Your task to perform on an android device: turn off sleep mode Image 0: 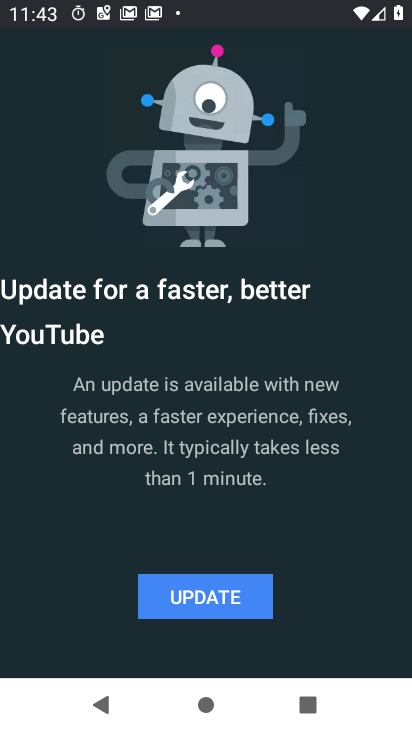
Step 0: press home button
Your task to perform on an android device: turn off sleep mode Image 1: 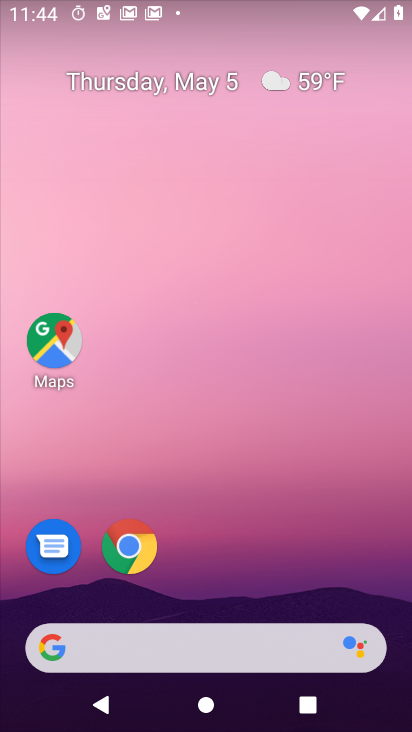
Step 1: drag from (266, 451) to (257, 37)
Your task to perform on an android device: turn off sleep mode Image 2: 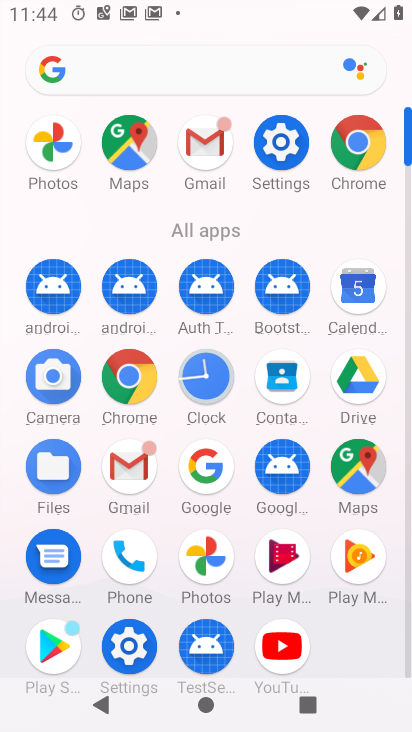
Step 2: click (286, 128)
Your task to perform on an android device: turn off sleep mode Image 3: 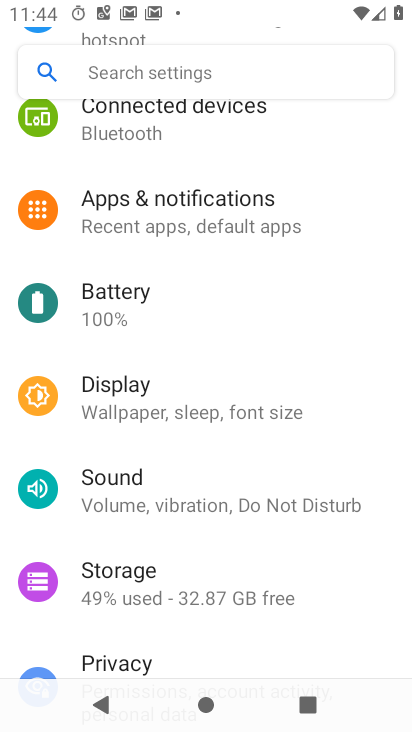
Step 3: click (281, 401)
Your task to perform on an android device: turn off sleep mode Image 4: 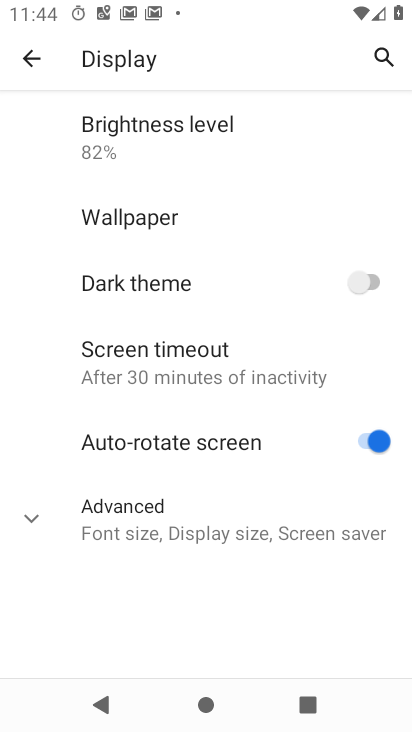
Step 4: click (220, 534)
Your task to perform on an android device: turn off sleep mode Image 5: 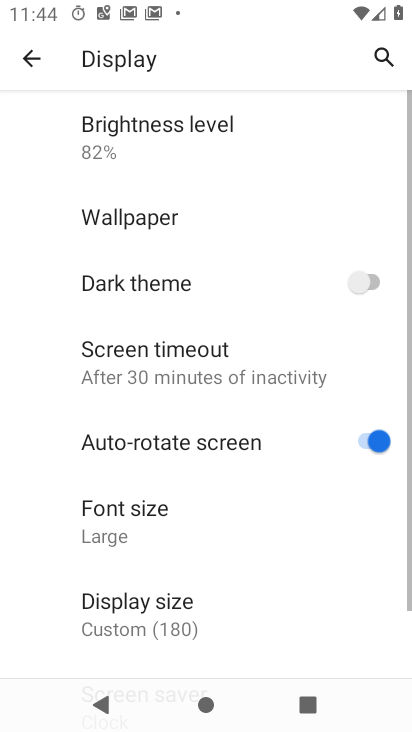
Step 5: task complete